Your task to perform on an android device: change timer sound Image 0: 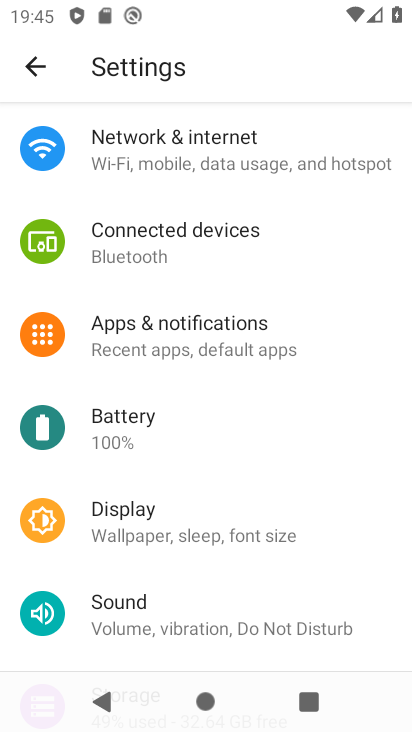
Step 0: press home button
Your task to perform on an android device: change timer sound Image 1: 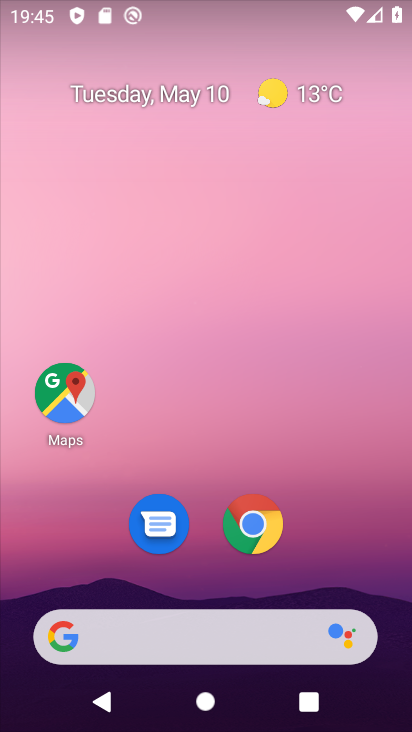
Step 1: drag from (352, 526) to (316, 39)
Your task to perform on an android device: change timer sound Image 2: 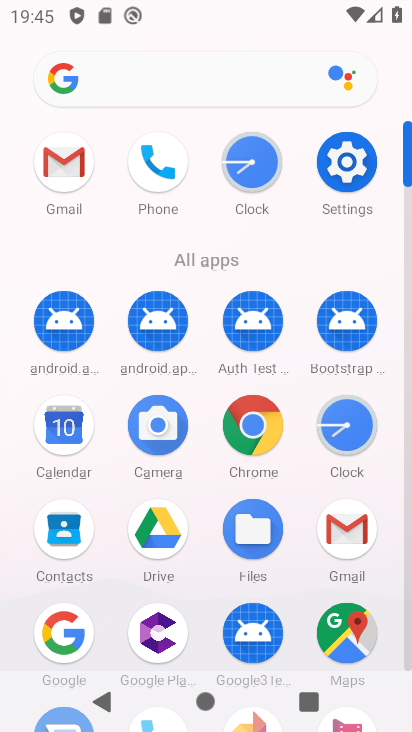
Step 2: click (252, 165)
Your task to perform on an android device: change timer sound Image 3: 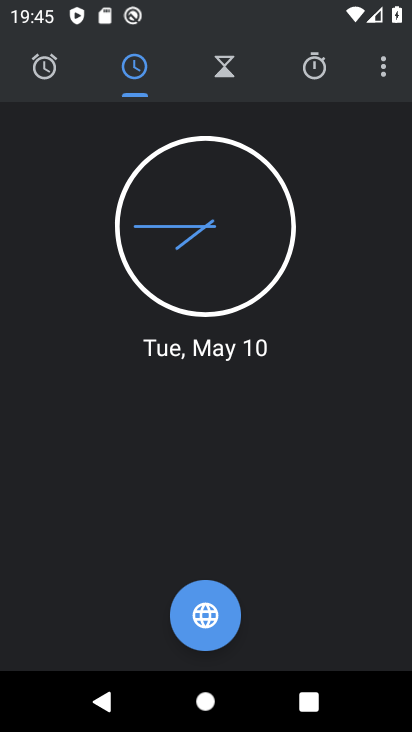
Step 3: click (382, 66)
Your task to perform on an android device: change timer sound Image 4: 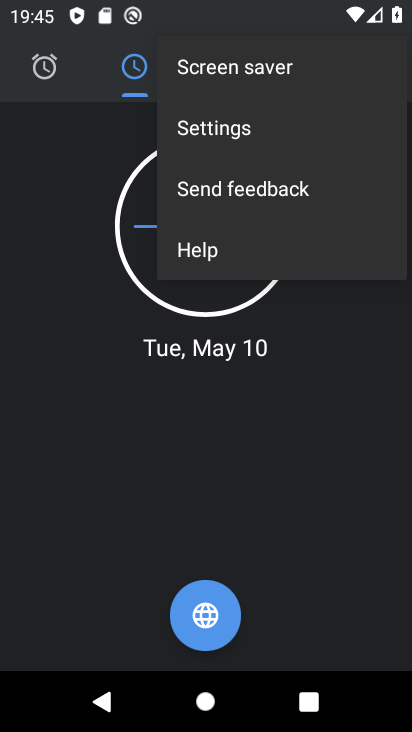
Step 4: click (277, 131)
Your task to perform on an android device: change timer sound Image 5: 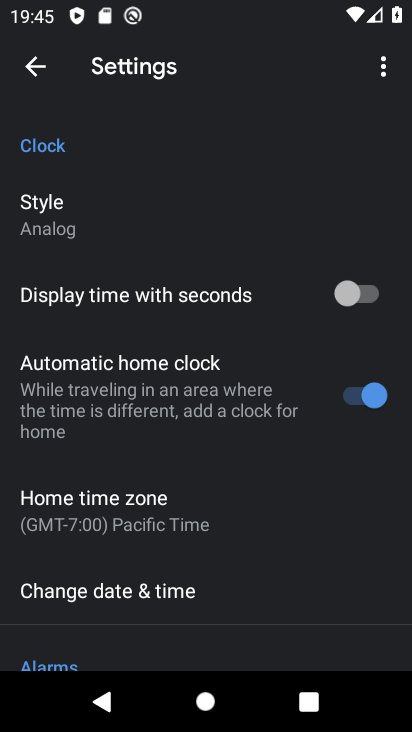
Step 5: drag from (235, 470) to (272, 99)
Your task to perform on an android device: change timer sound Image 6: 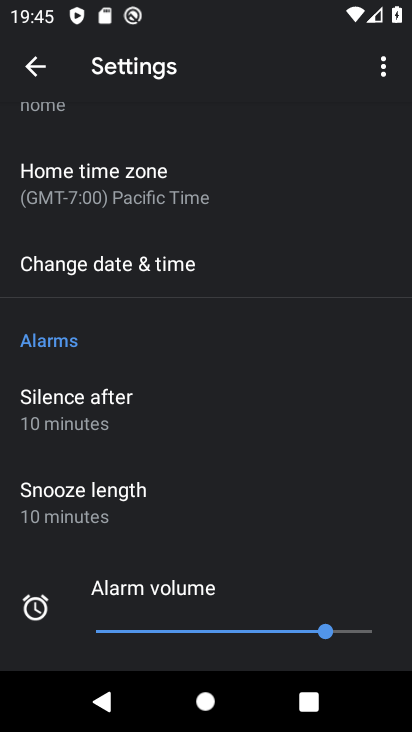
Step 6: drag from (231, 482) to (290, 71)
Your task to perform on an android device: change timer sound Image 7: 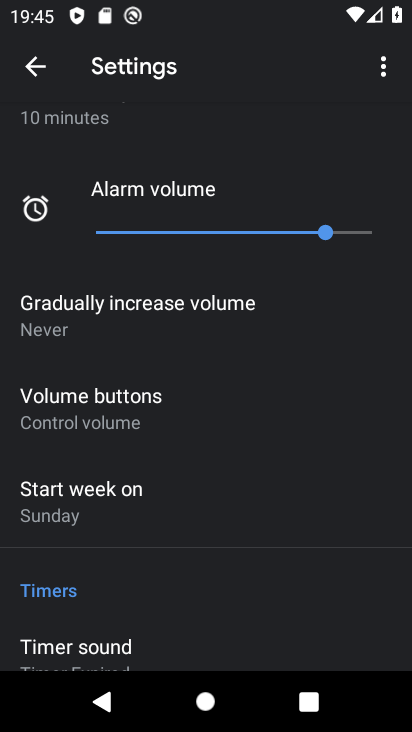
Step 7: drag from (232, 427) to (265, 148)
Your task to perform on an android device: change timer sound Image 8: 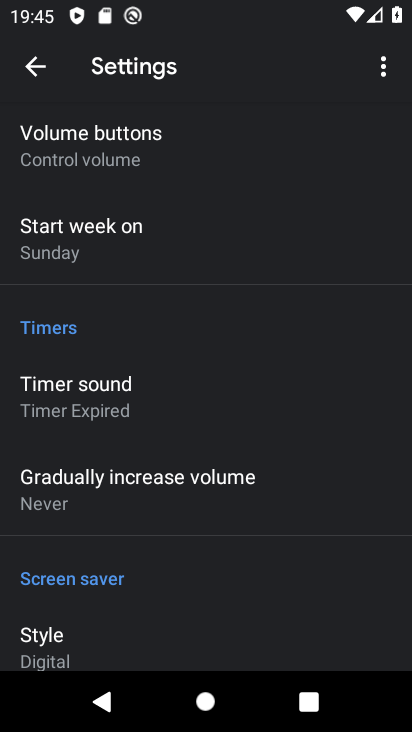
Step 8: click (128, 393)
Your task to perform on an android device: change timer sound Image 9: 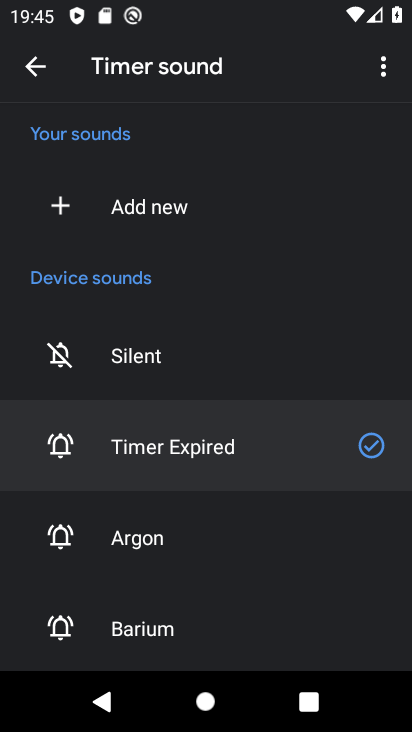
Step 9: click (124, 539)
Your task to perform on an android device: change timer sound Image 10: 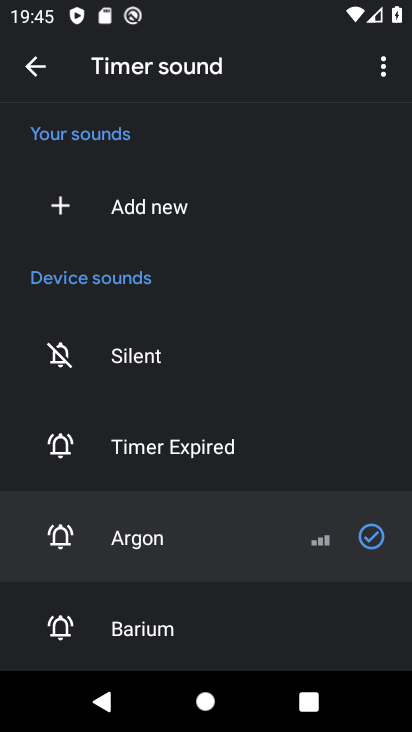
Step 10: task complete